Your task to perform on an android device: Search for the best coffee tables on Crate & Barrel Image 0: 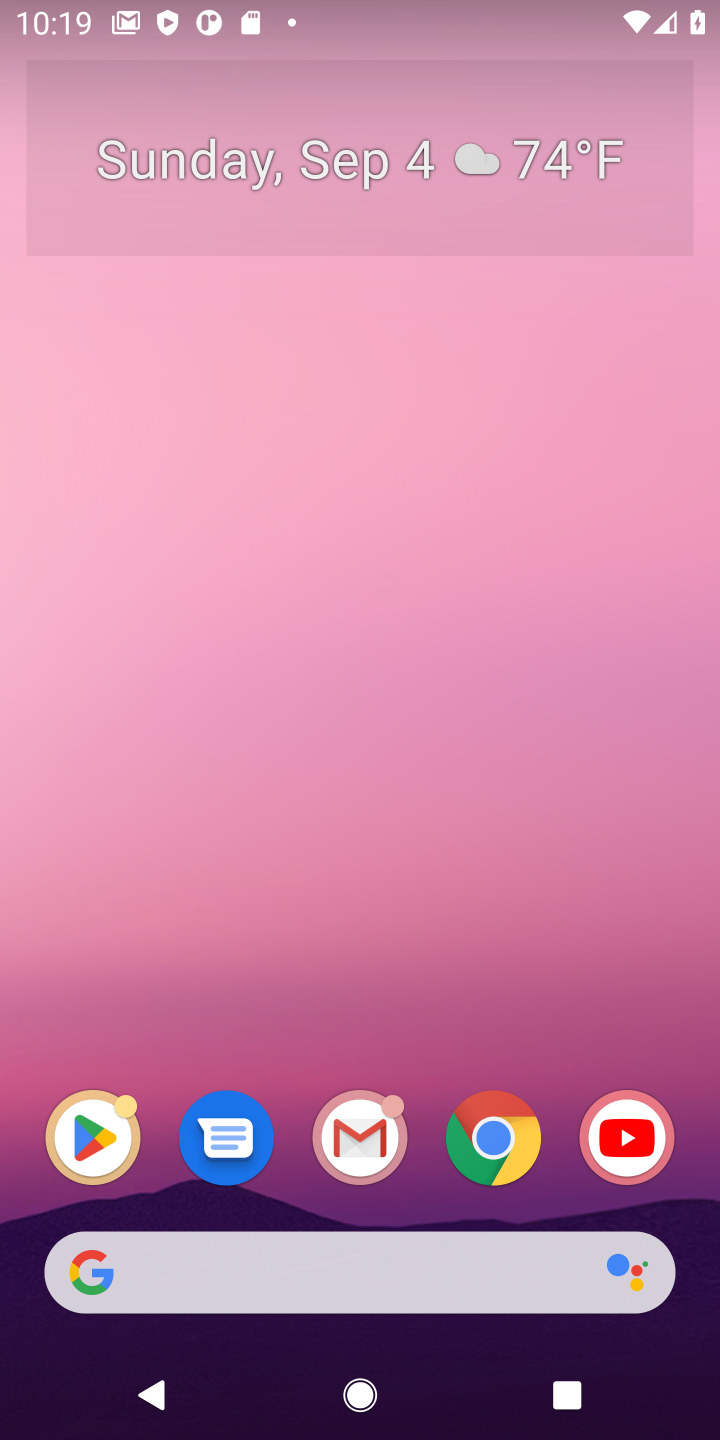
Step 0: click (508, 1139)
Your task to perform on an android device: Search for the best coffee tables on Crate & Barrel Image 1: 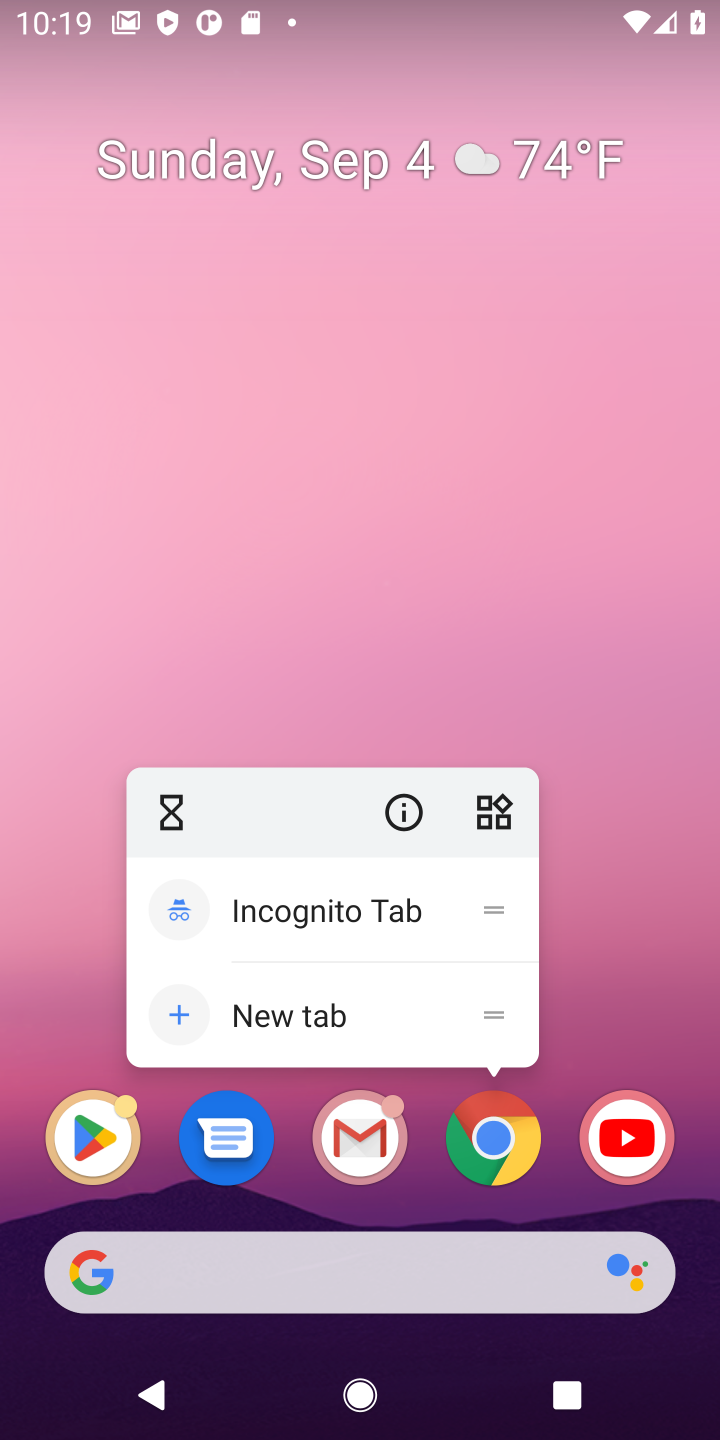
Step 1: click (497, 1142)
Your task to perform on an android device: Search for the best coffee tables on Crate & Barrel Image 2: 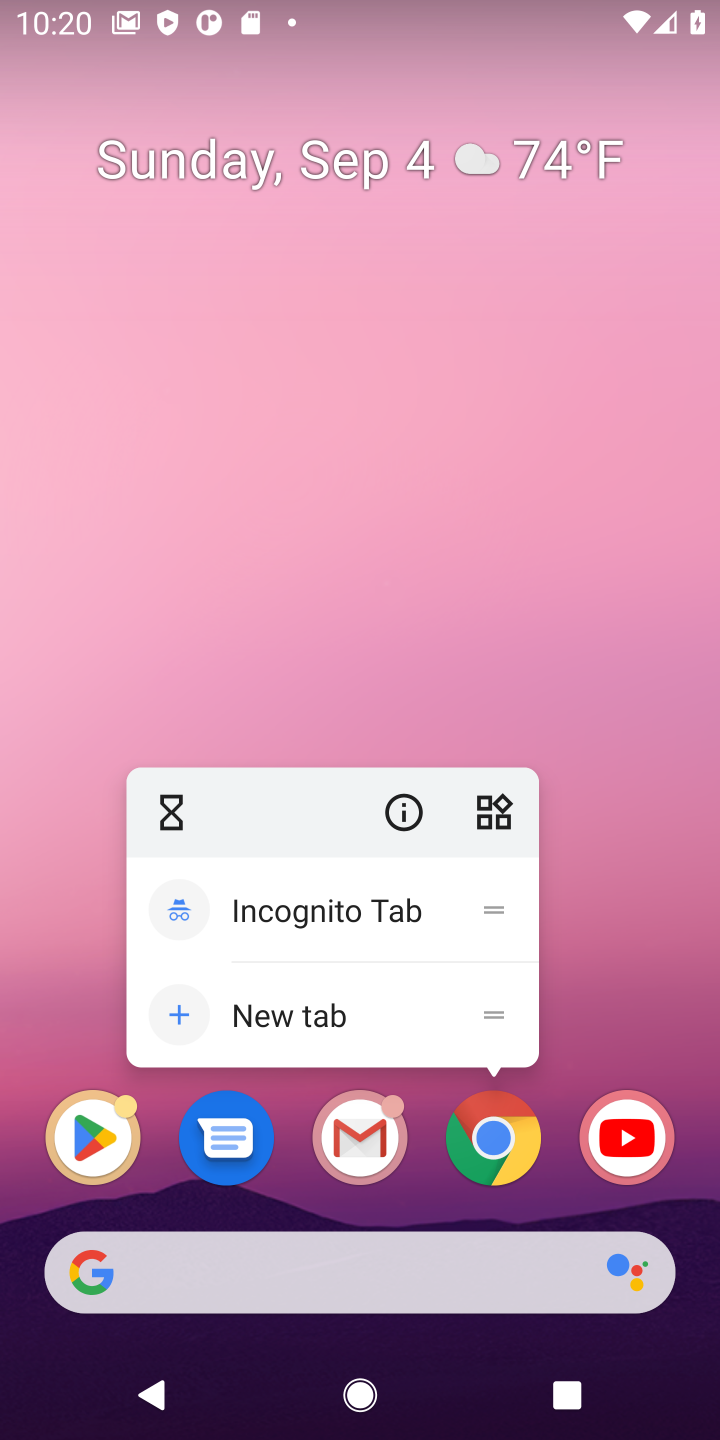
Step 2: click (486, 1174)
Your task to perform on an android device: Search for the best coffee tables on Crate & Barrel Image 3: 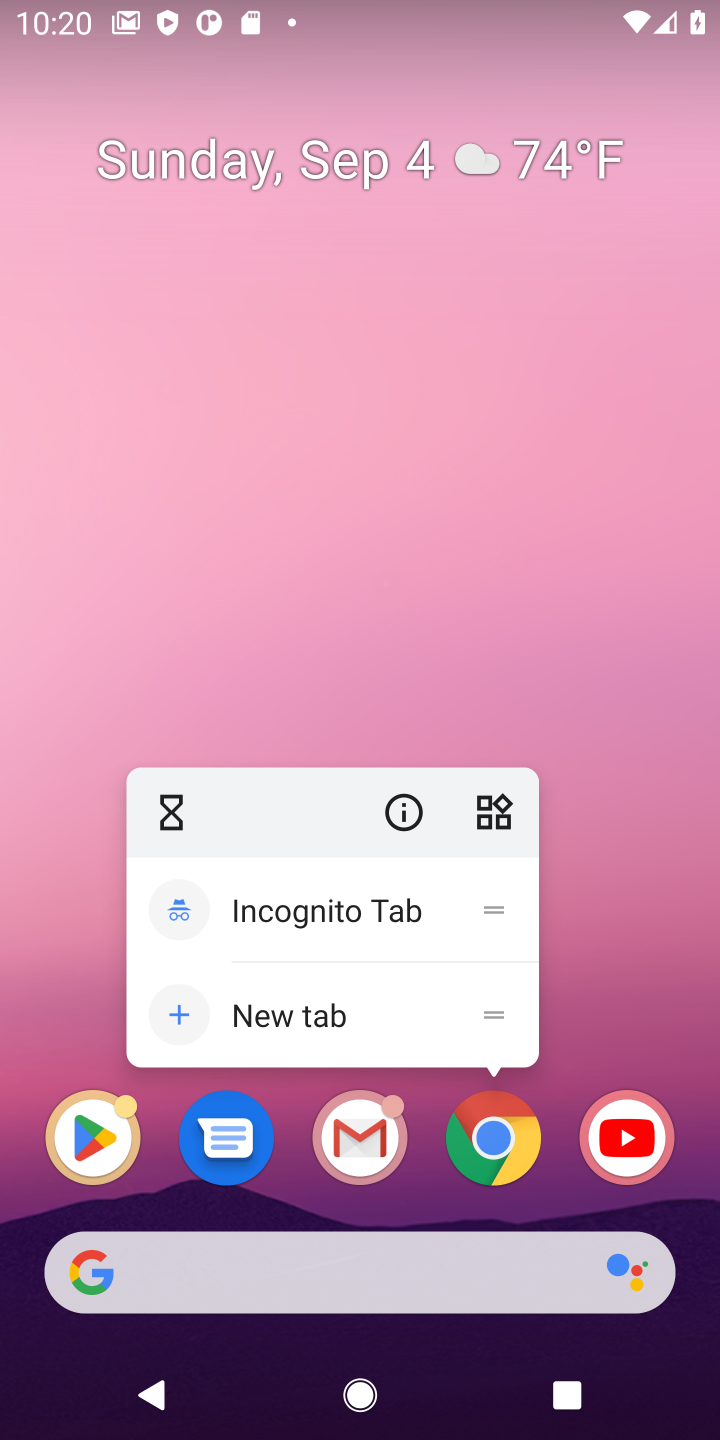
Step 3: click (533, 1134)
Your task to perform on an android device: Search for the best coffee tables on Crate & Barrel Image 4: 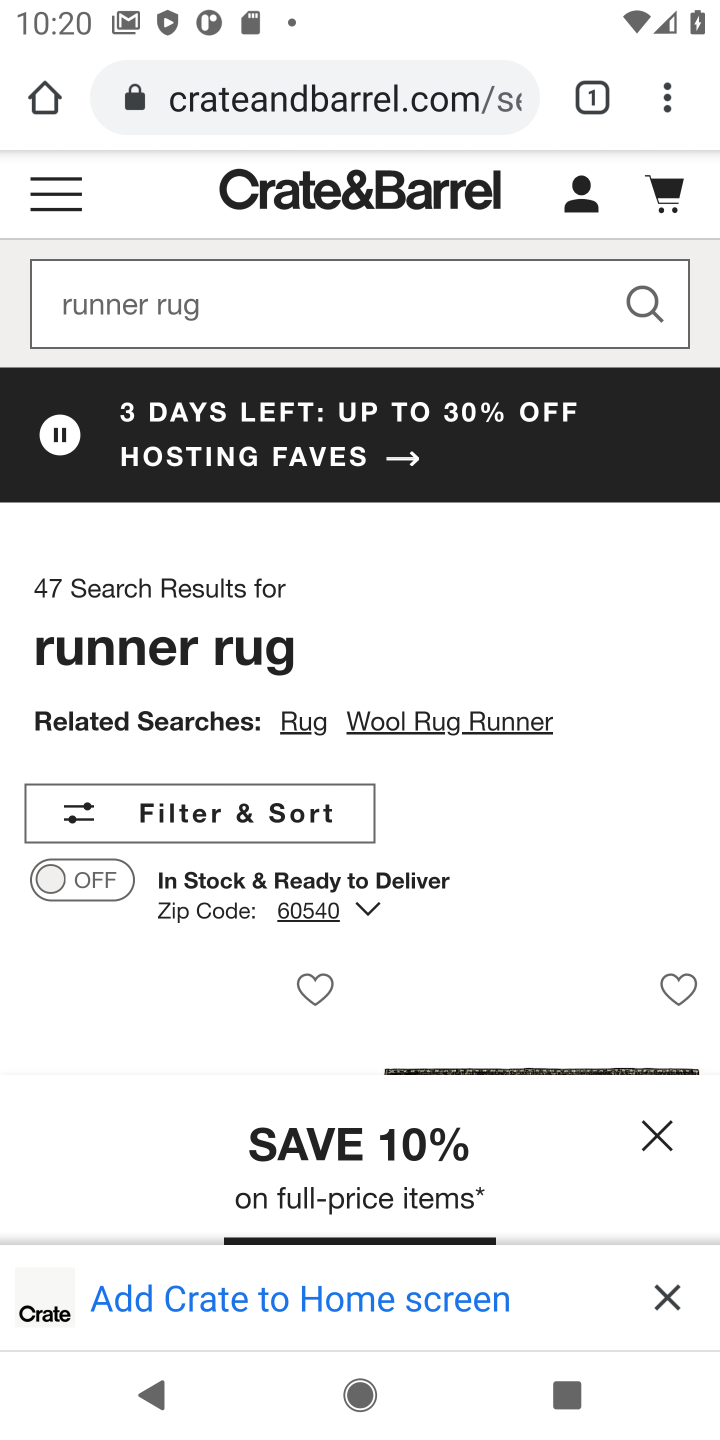
Step 4: click (367, 310)
Your task to perform on an android device: Search for the best coffee tables on Crate & Barrel Image 5: 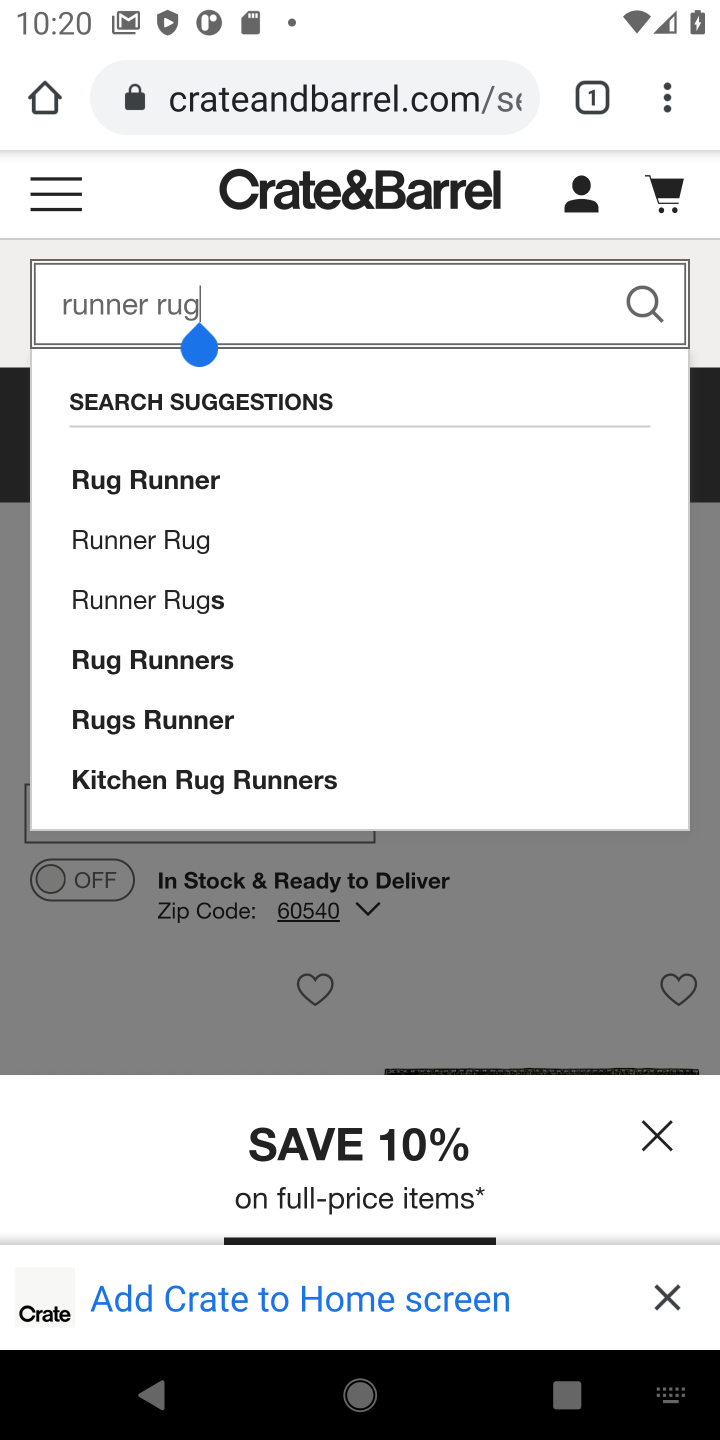
Step 5: click (196, 109)
Your task to perform on an android device: Search for the best coffee tables on Crate & Barrel Image 6: 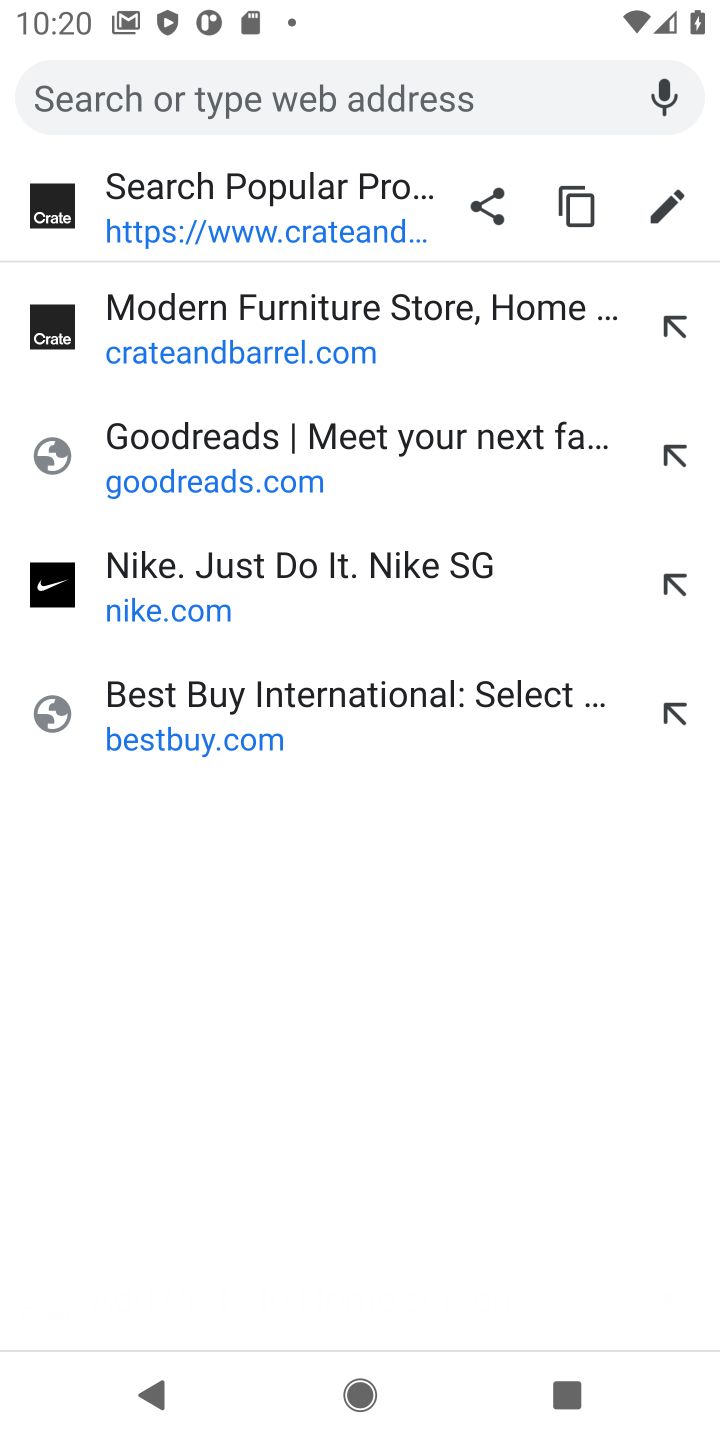
Step 6: click (274, 332)
Your task to perform on an android device: Search for the best coffee tables on Crate & Barrel Image 7: 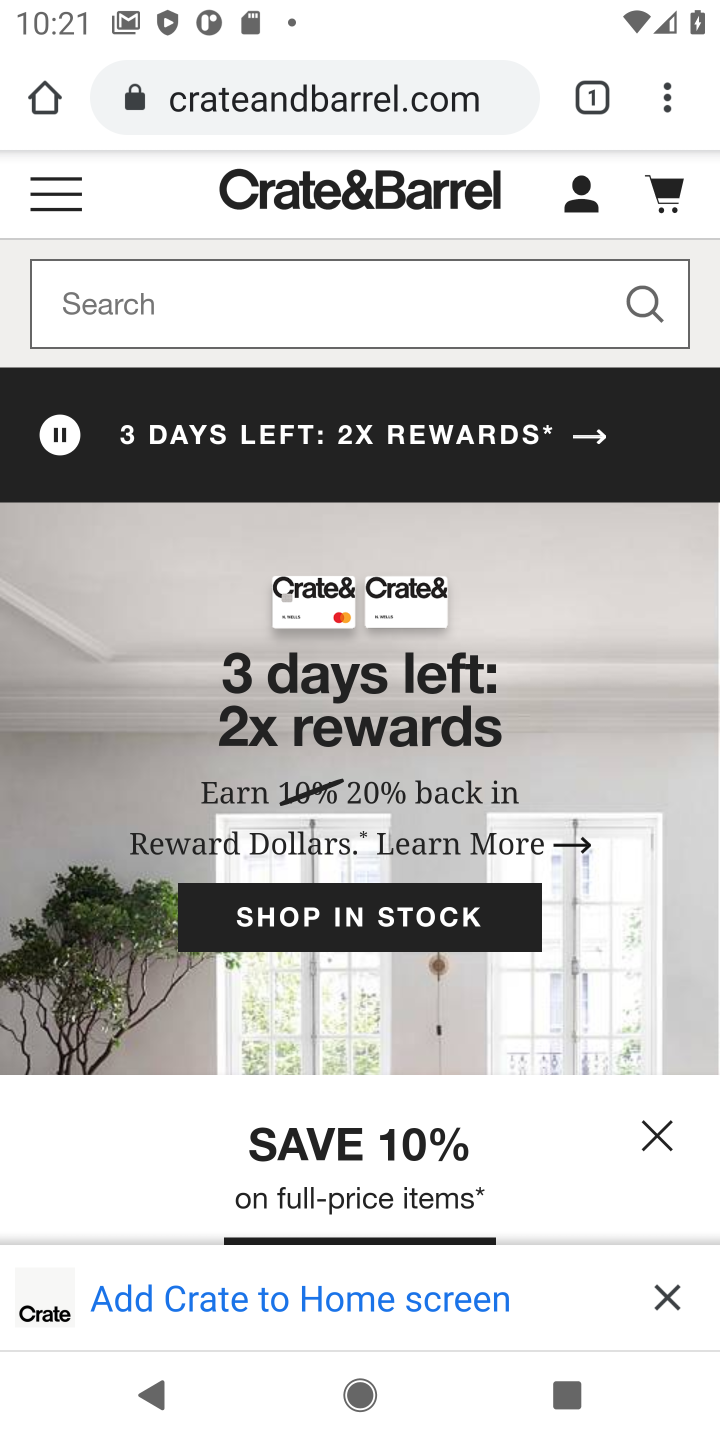
Step 7: click (274, 332)
Your task to perform on an android device: Search for the best coffee tables on Crate & Barrel Image 8: 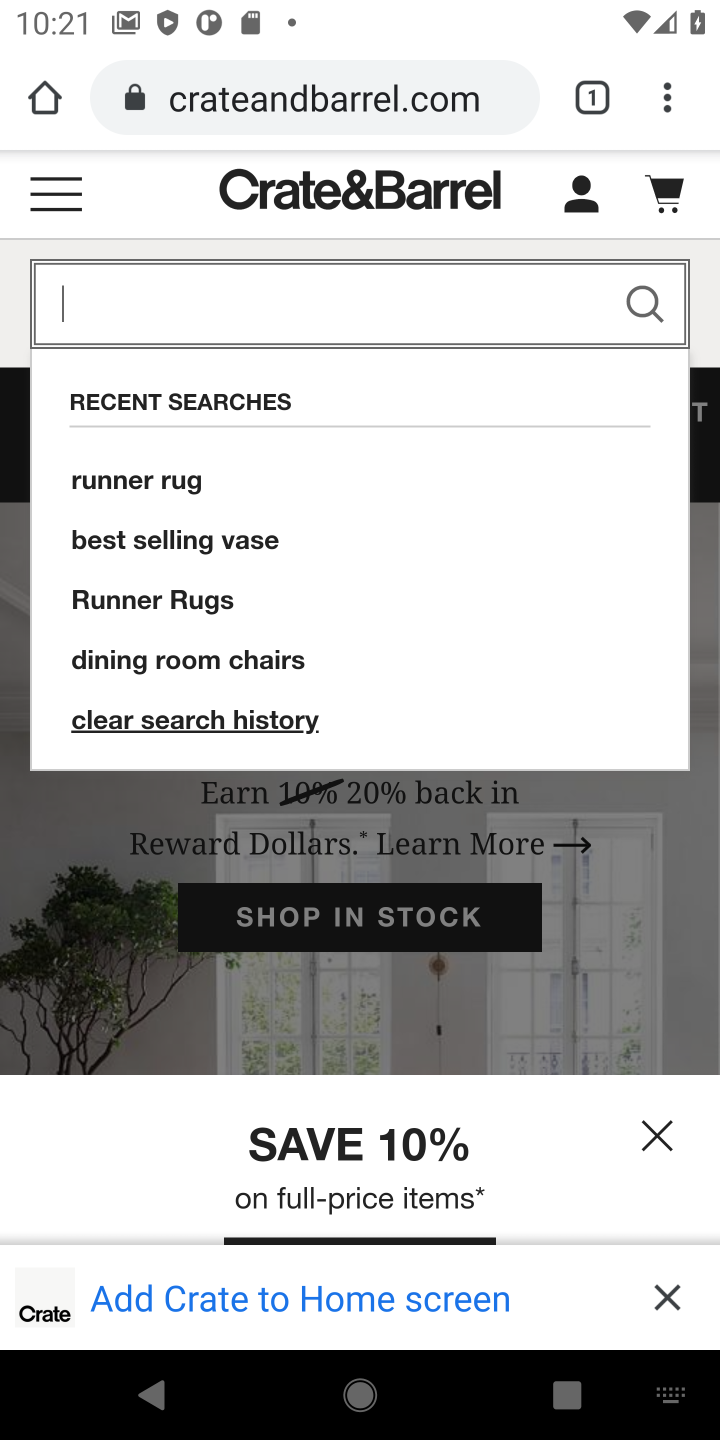
Step 8: type "coffee tables"
Your task to perform on an android device: Search for the best coffee tables on Crate & Barrel Image 9: 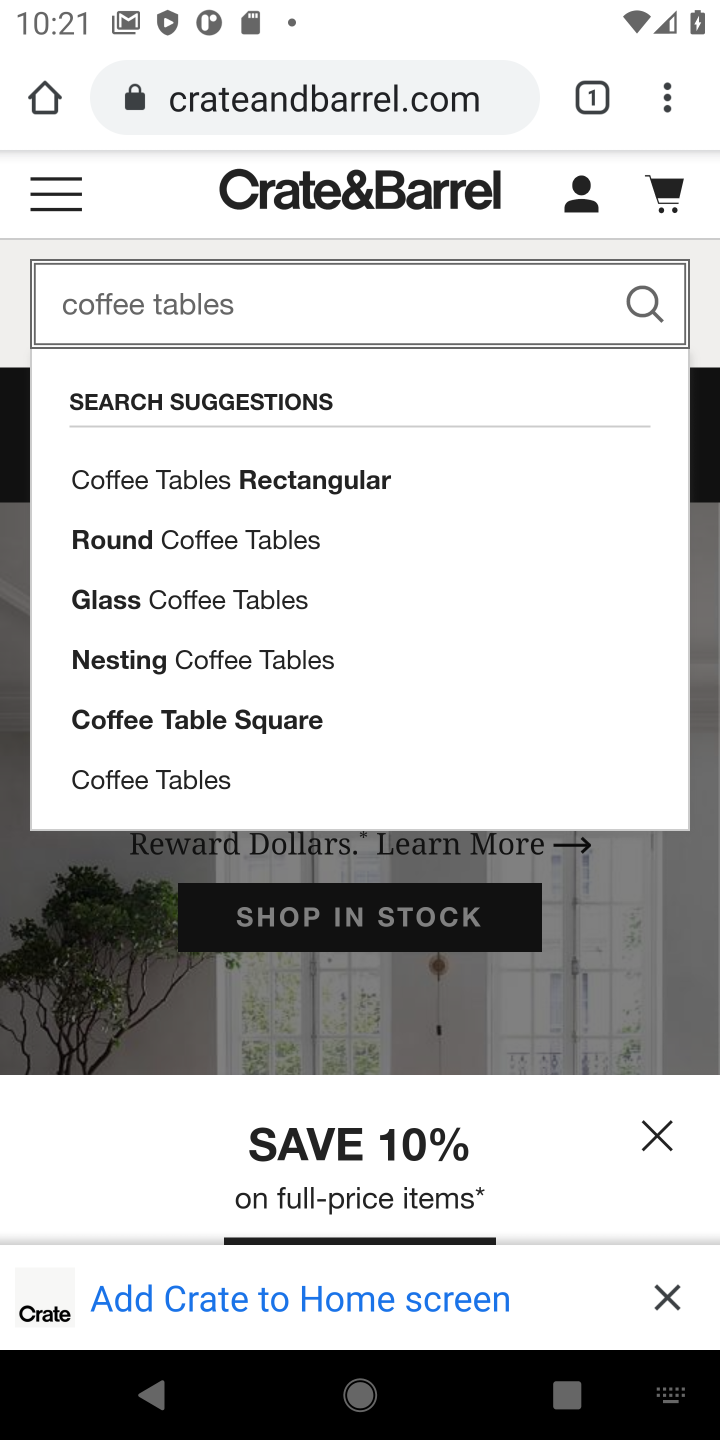
Step 9: press enter
Your task to perform on an android device: Search for the best coffee tables on Crate & Barrel Image 10: 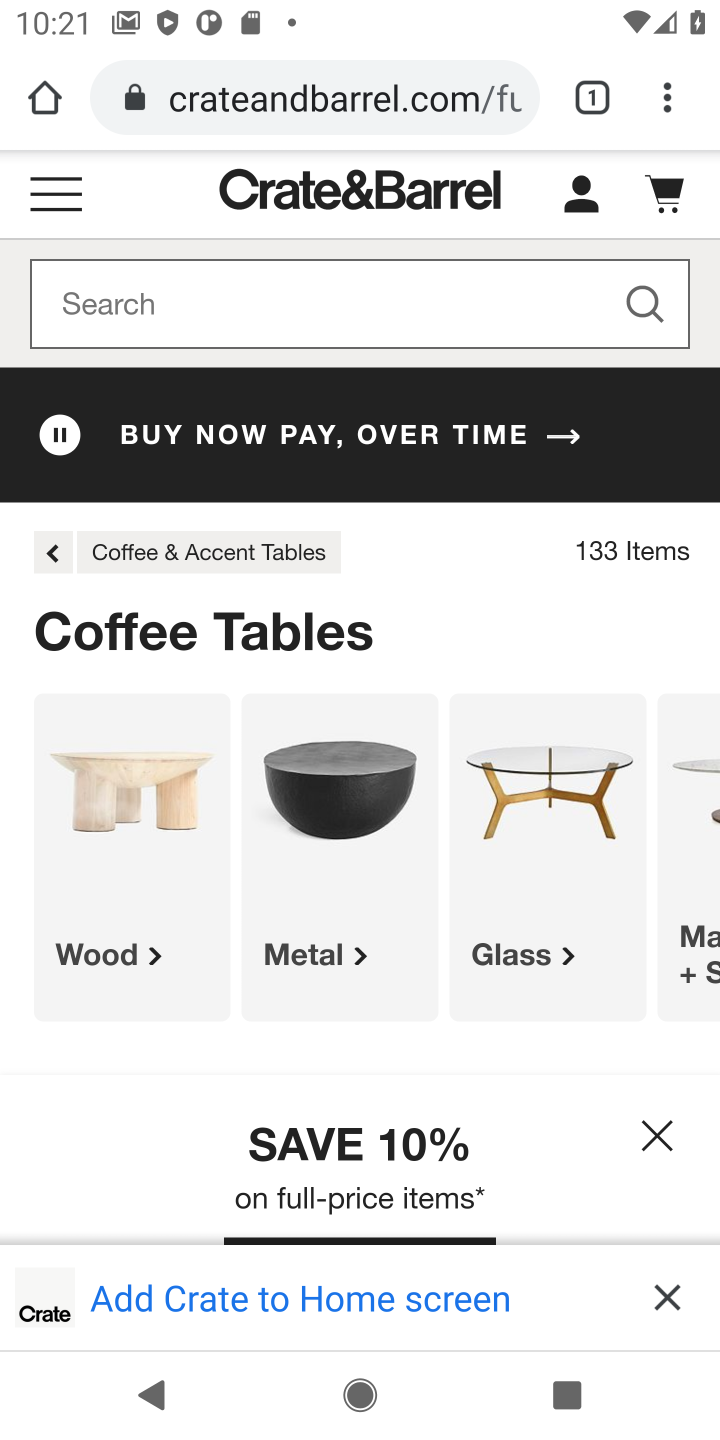
Step 10: task complete